Your task to perform on an android device: Turn off the flashlight Image 0: 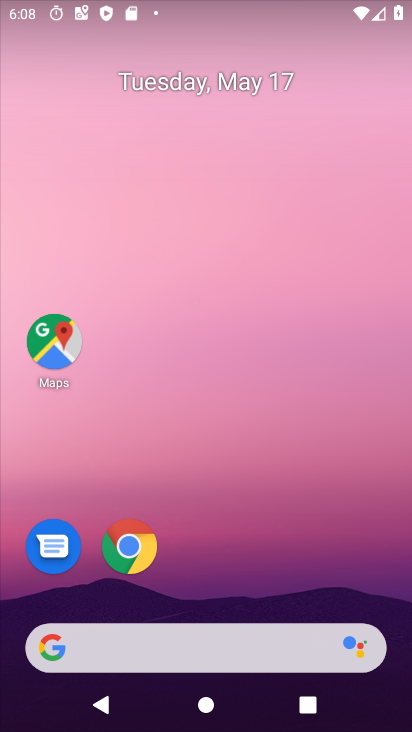
Step 0: drag from (219, 590) to (213, 245)
Your task to perform on an android device: Turn off the flashlight Image 1: 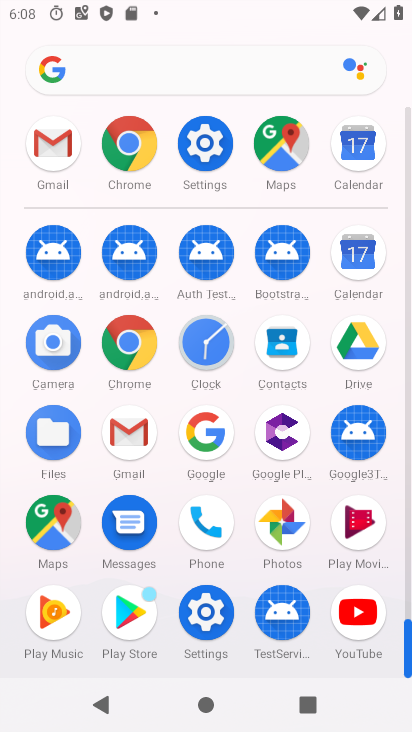
Step 1: click (204, 625)
Your task to perform on an android device: Turn off the flashlight Image 2: 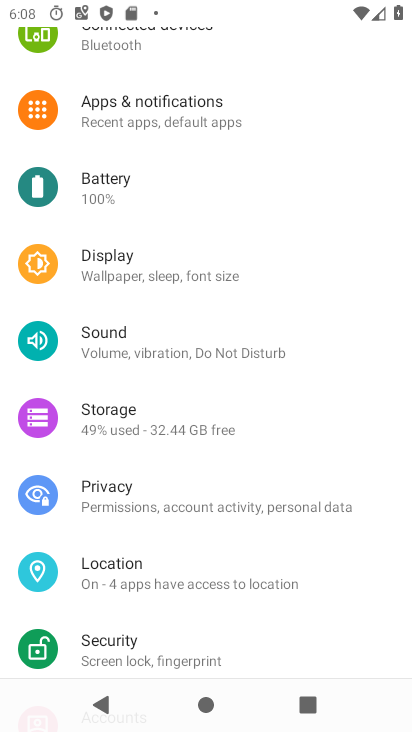
Step 2: task complete